Your task to perform on an android device: turn on wifi Image 0: 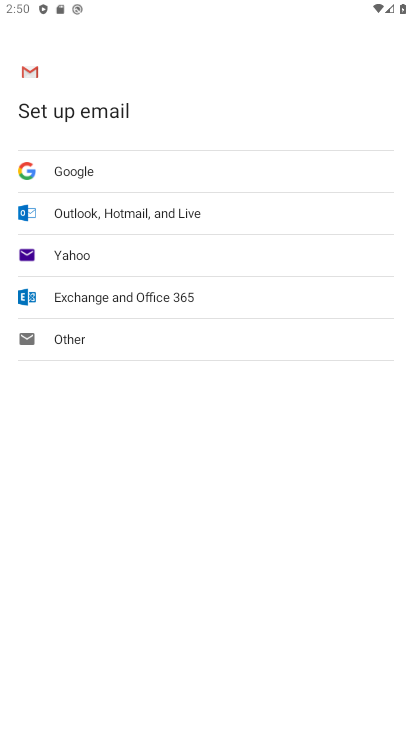
Step 0: press home button
Your task to perform on an android device: turn on wifi Image 1: 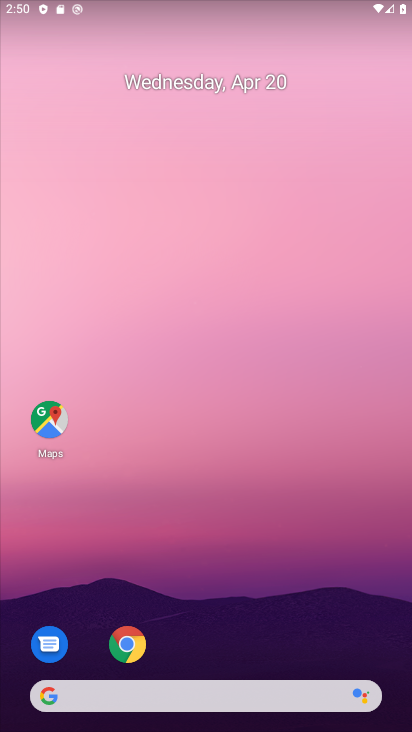
Step 1: drag from (215, 474) to (238, 74)
Your task to perform on an android device: turn on wifi Image 2: 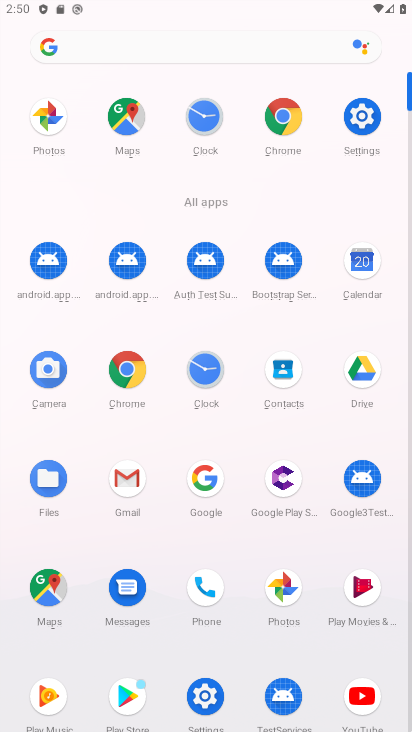
Step 2: click (362, 127)
Your task to perform on an android device: turn on wifi Image 3: 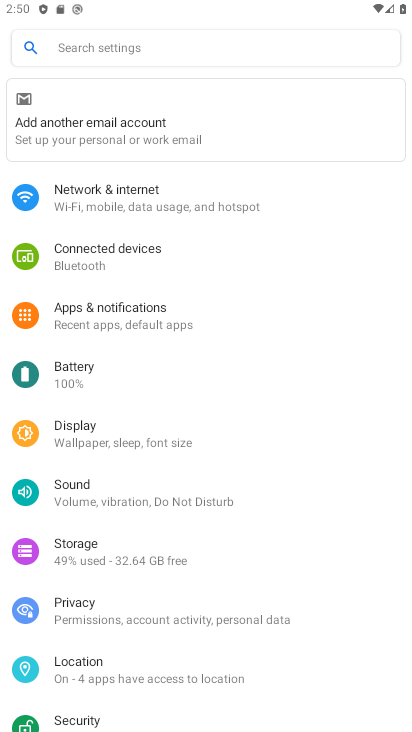
Step 3: click (130, 197)
Your task to perform on an android device: turn on wifi Image 4: 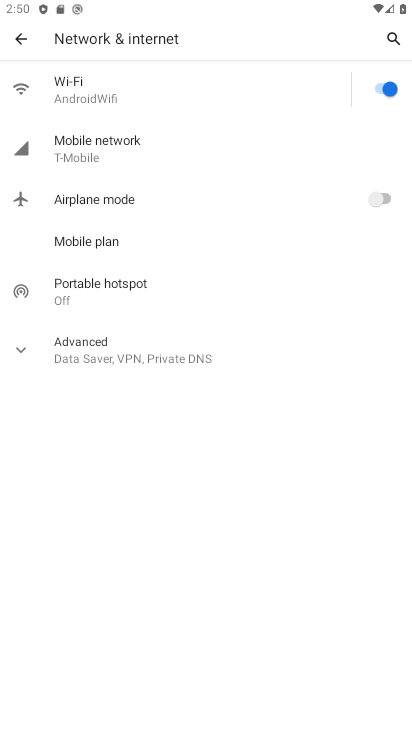
Step 4: click (126, 81)
Your task to perform on an android device: turn on wifi Image 5: 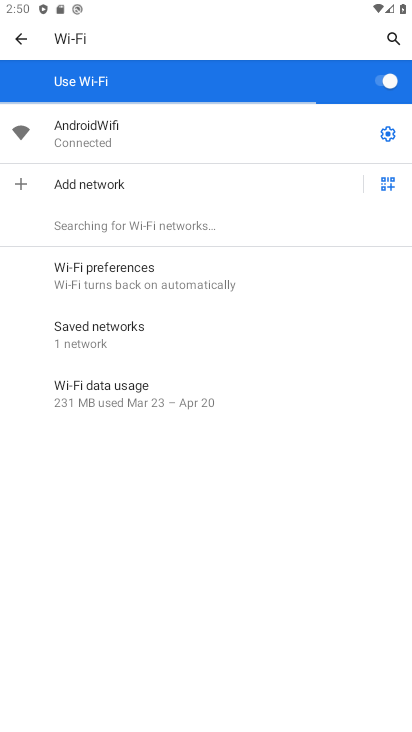
Step 5: task complete